Your task to perform on an android device: Open Chrome and go to the settings page Image 0: 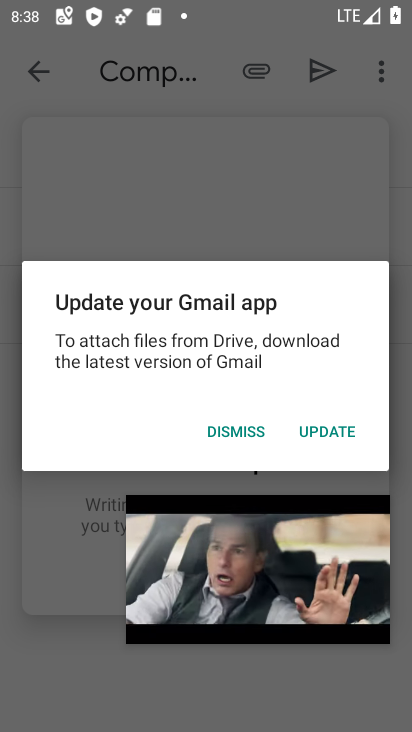
Step 0: drag from (296, 556) to (178, 731)
Your task to perform on an android device: Open Chrome and go to the settings page Image 1: 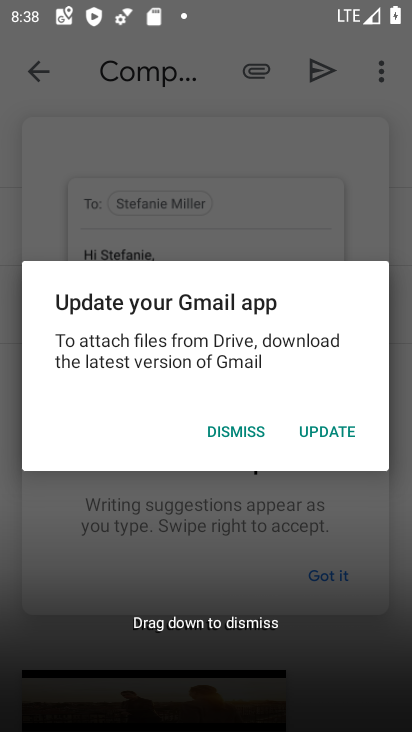
Step 1: press home button
Your task to perform on an android device: Open Chrome and go to the settings page Image 2: 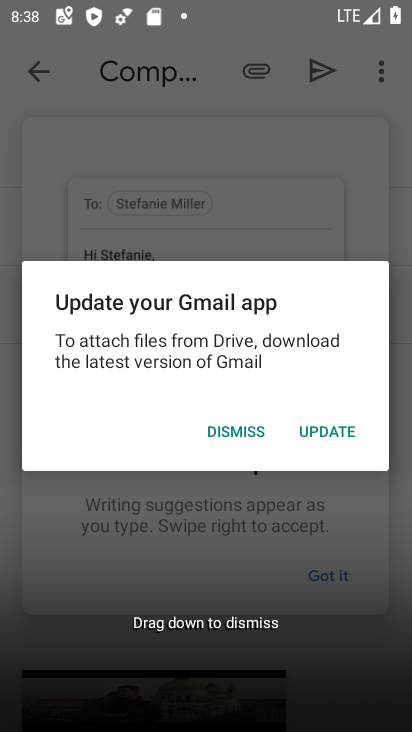
Step 2: drag from (178, 731) to (403, 420)
Your task to perform on an android device: Open Chrome and go to the settings page Image 3: 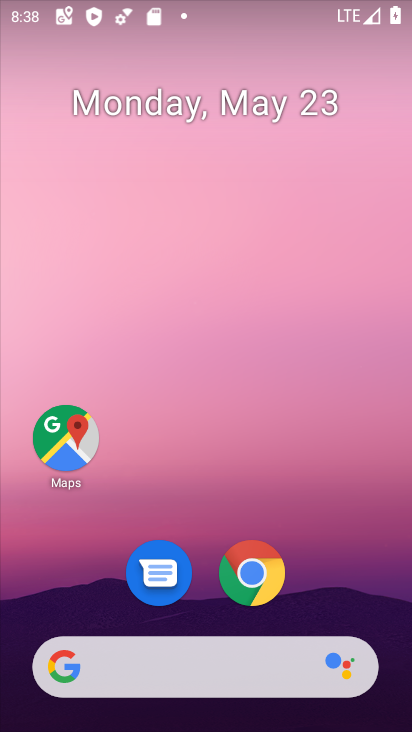
Step 3: click (260, 581)
Your task to perform on an android device: Open Chrome and go to the settings page Image 4: 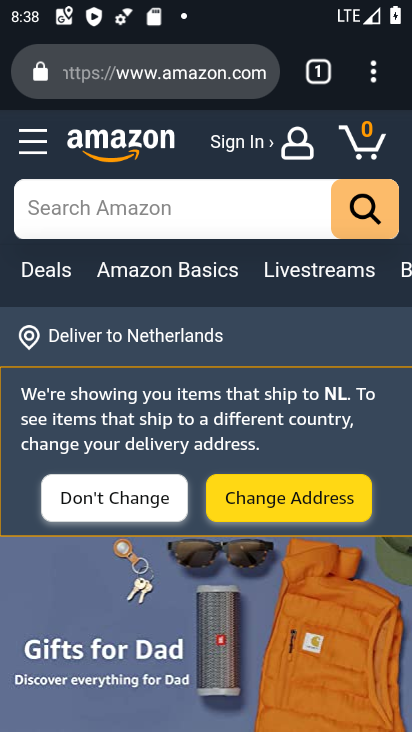
Step 4: click (372, 72)
Your task to perform on an android device: Open Chrome and go to the settings page Image 5: 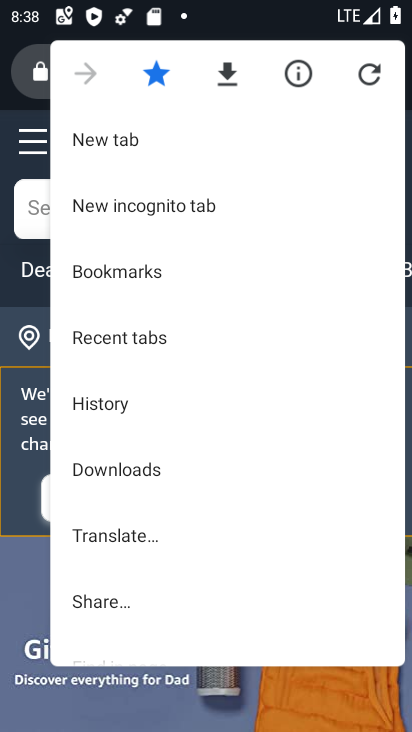
Step 5: drag from (205, 443) to (219, 173)
Your task to perform on an android device: Open Chrome and go to the settings page Image 6: 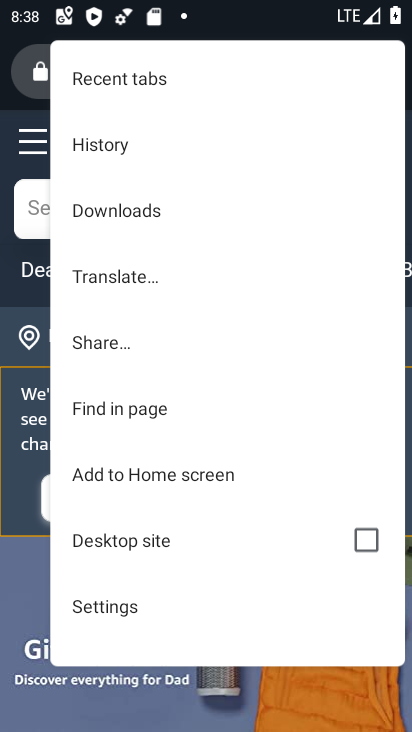
Step 6: click (147, 598)
Your task to perform on an android device: Open Chrome and go to the settings page Image 7: 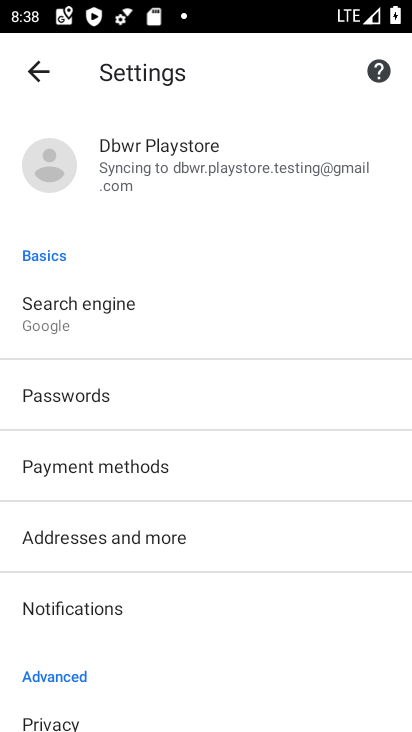
Step 7: task complete